Your task to perform on an android device: Add "usb-c to usb-a" to the cart on walmart Image 0: 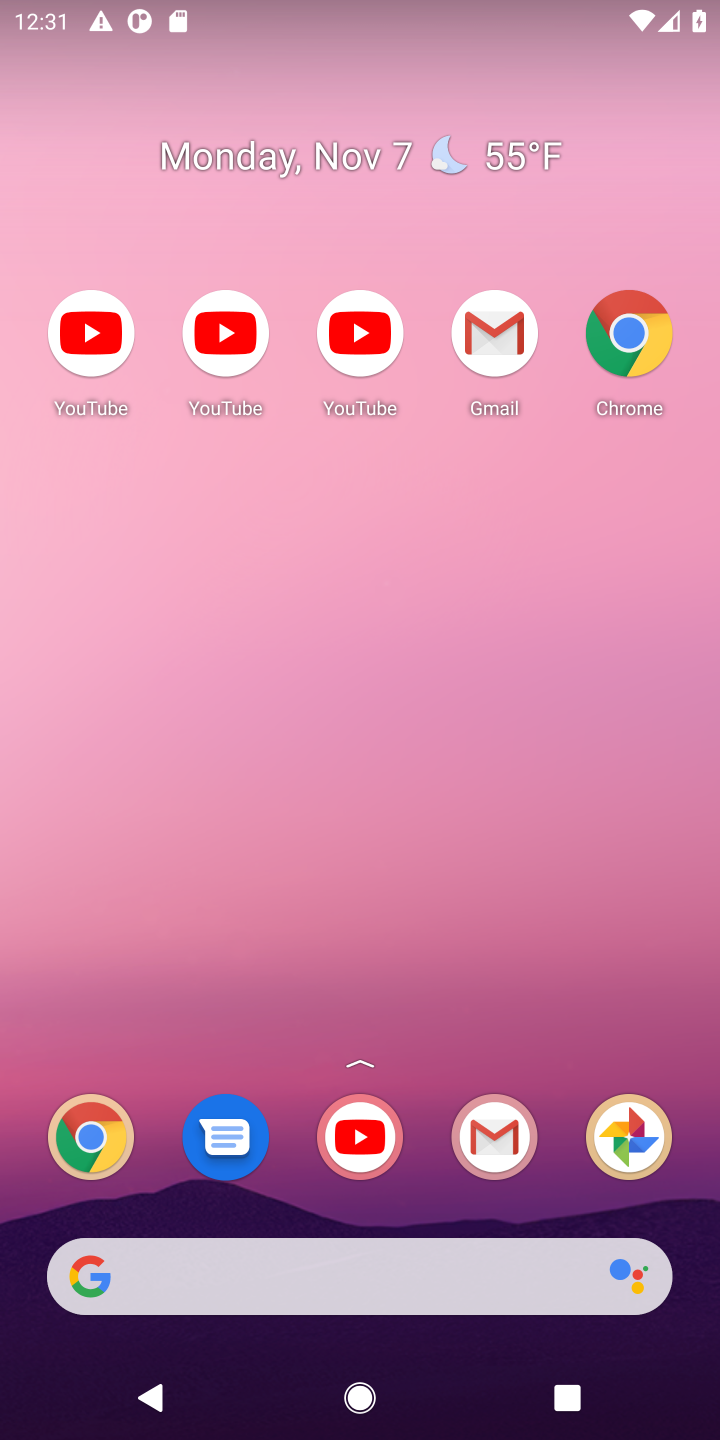
Step 0: drag from (270, 1152) to (329, 183)
Your task to perform on an android device: Add "usb-c to usb-a" to the cart on walmart Image 1: 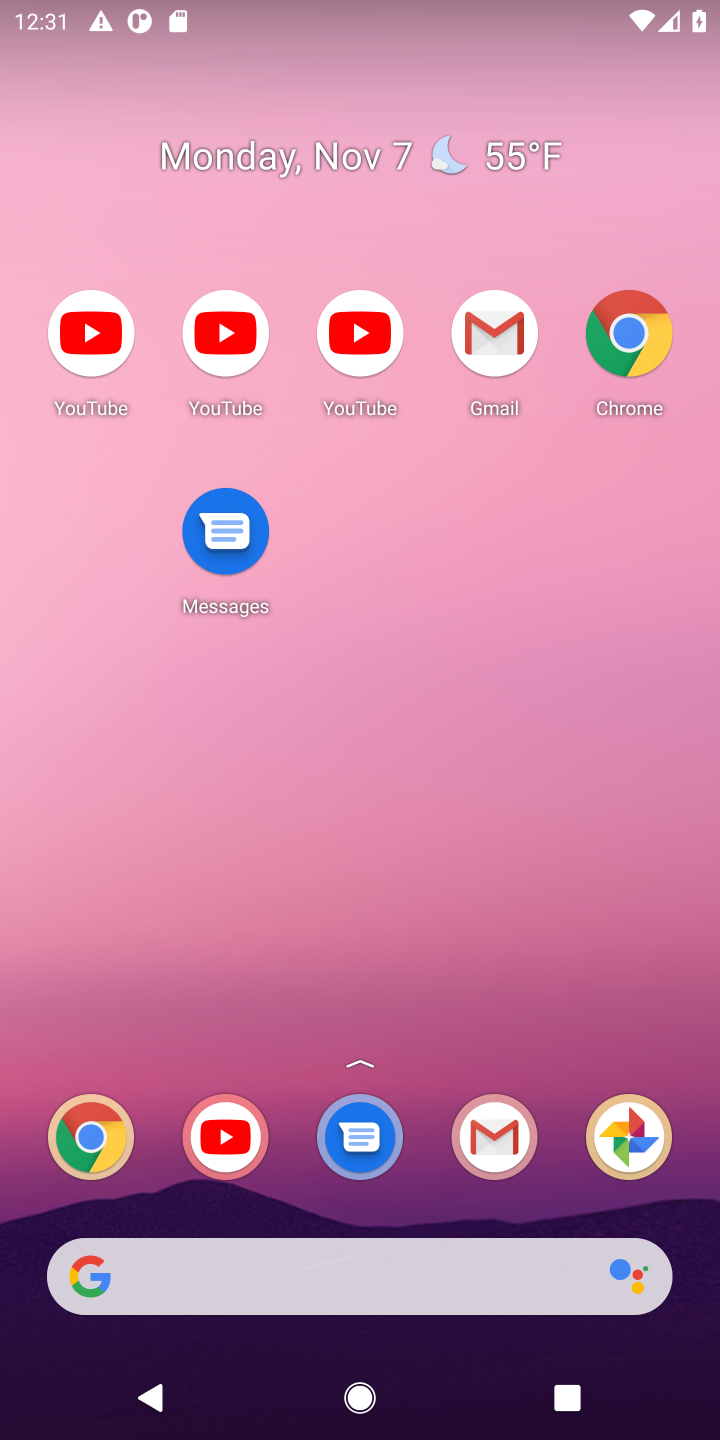
Step 1: click (561, 875)
Your task to perform on an android device: Add "usb-c to usb-a" to the cart on walmart Image 2: 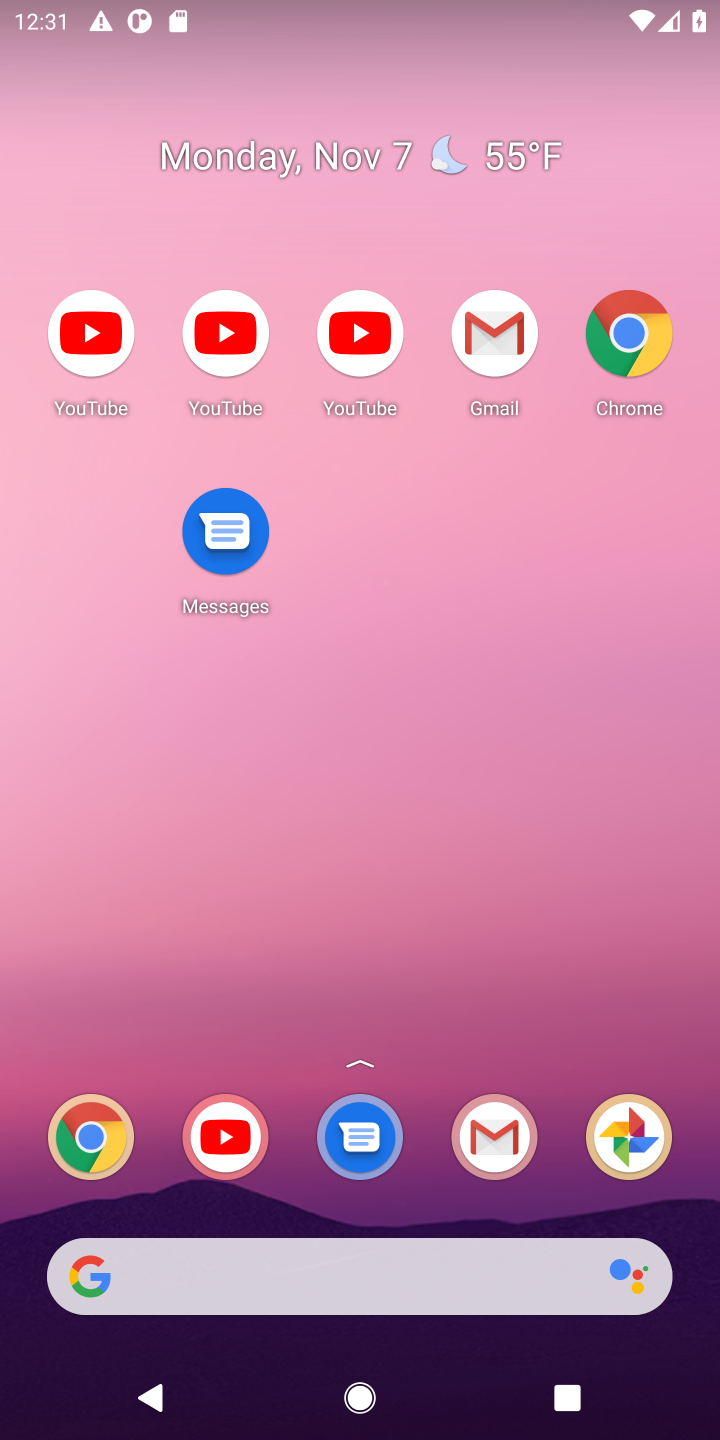
Step 2: drag from (433, 1213) to (634, 33)
Your task to perform on an android device: Add "usb-c to usb-a" to the cart on walmart Image 3: 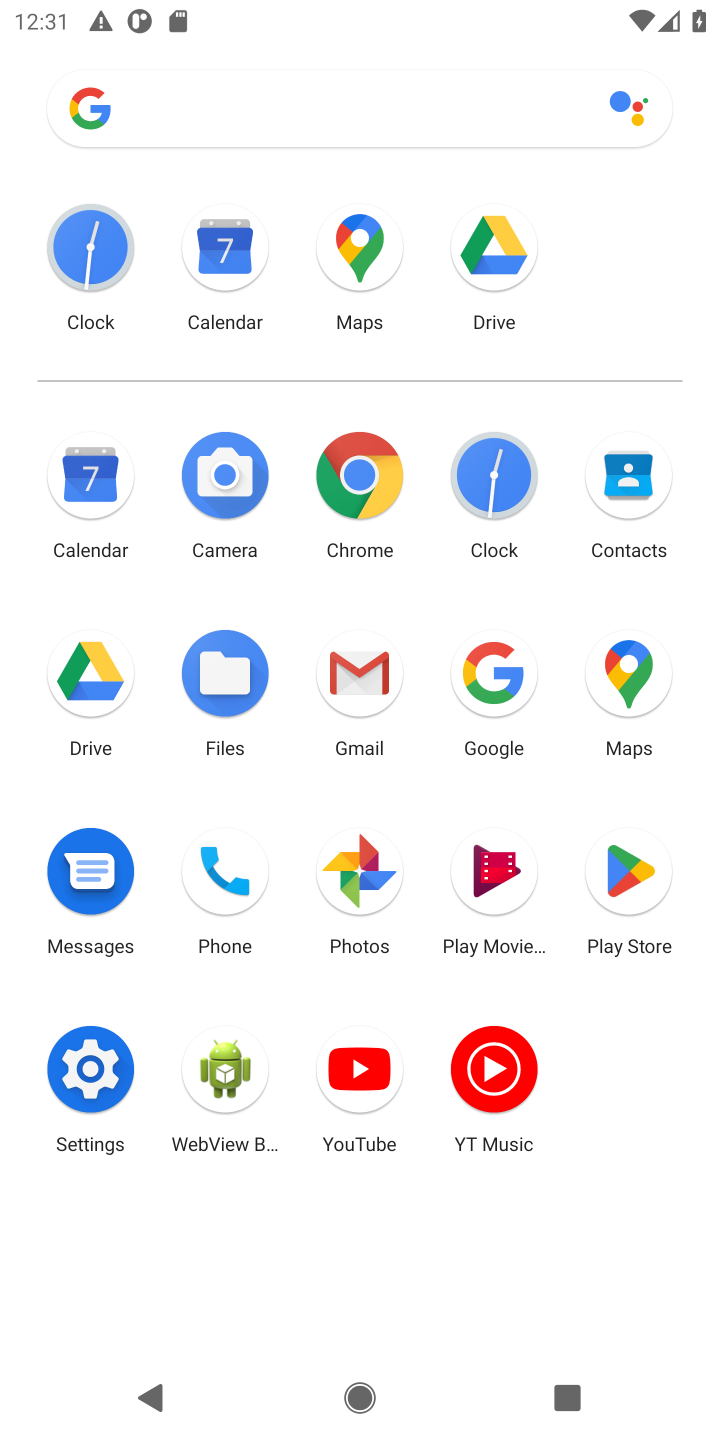
Step 3: click (358, 481)
Your task to perform on an android device: Add "usb-c to usb-a" to the cart on walmart Image 4: 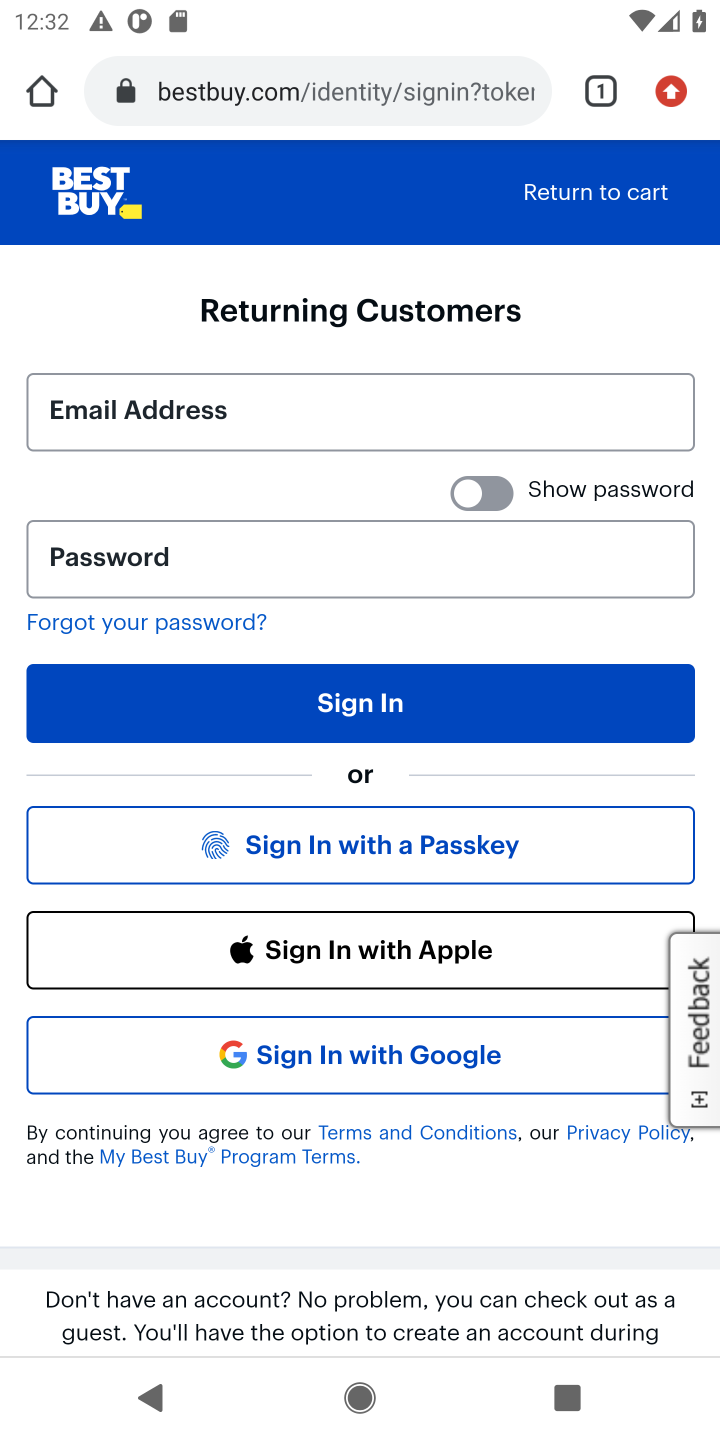
Step 4: click (392, 79)
Your task to perform on an android device: Add "usb-c to usb-a" to the cart on walmart Image 5: 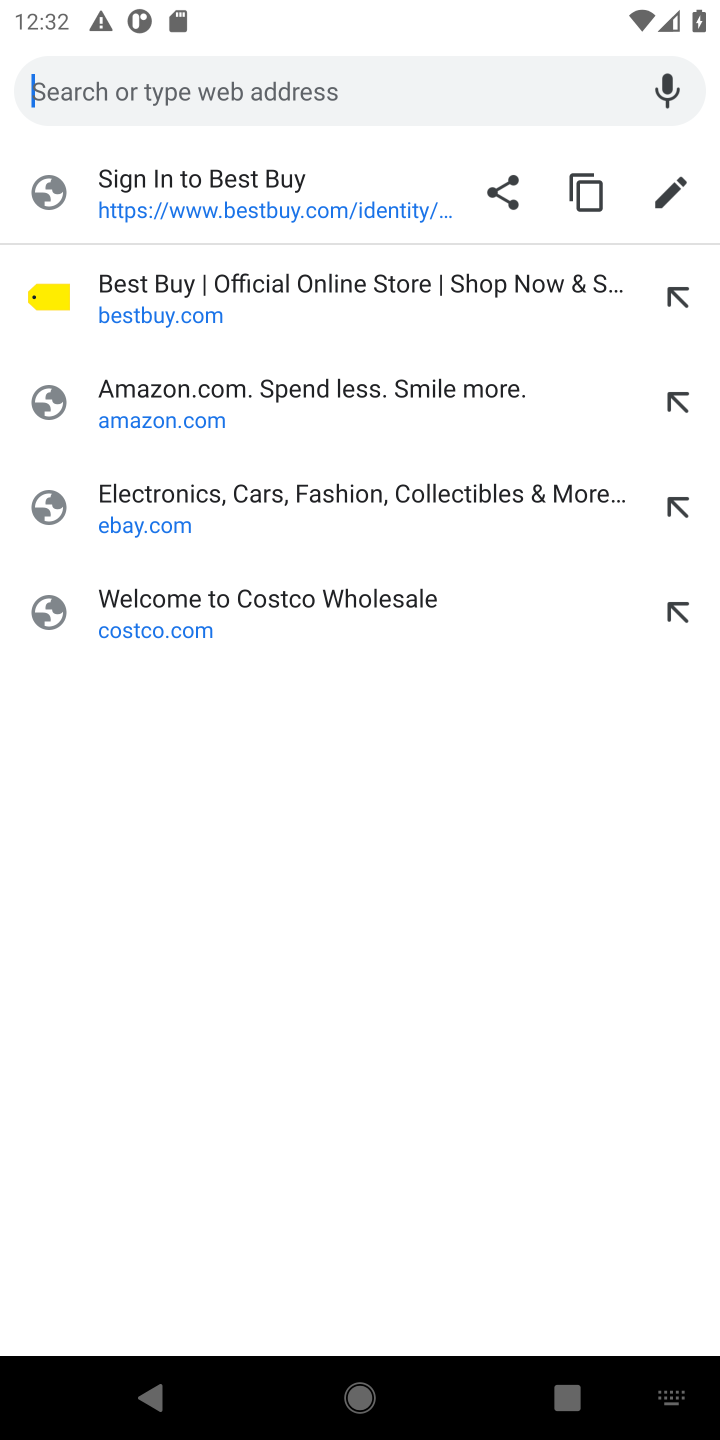
Step 5: type "walmart.com"
Your task to perform on an android device: Add "usb-c to usb-a" to the cart on walmart Image 6: 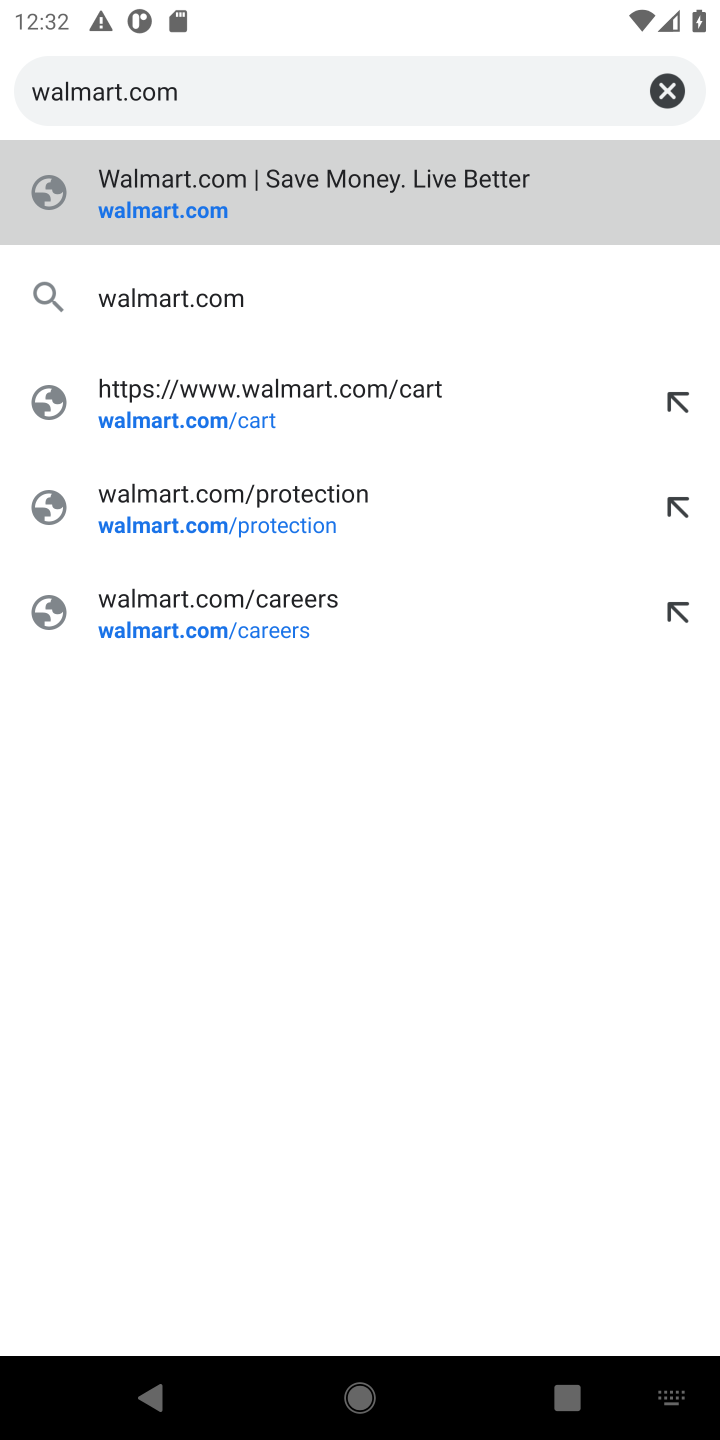
Step 6: press enter
Your task to perform on an android device: Add "usb-c to usb-a" to the cart on walmart Image 7: 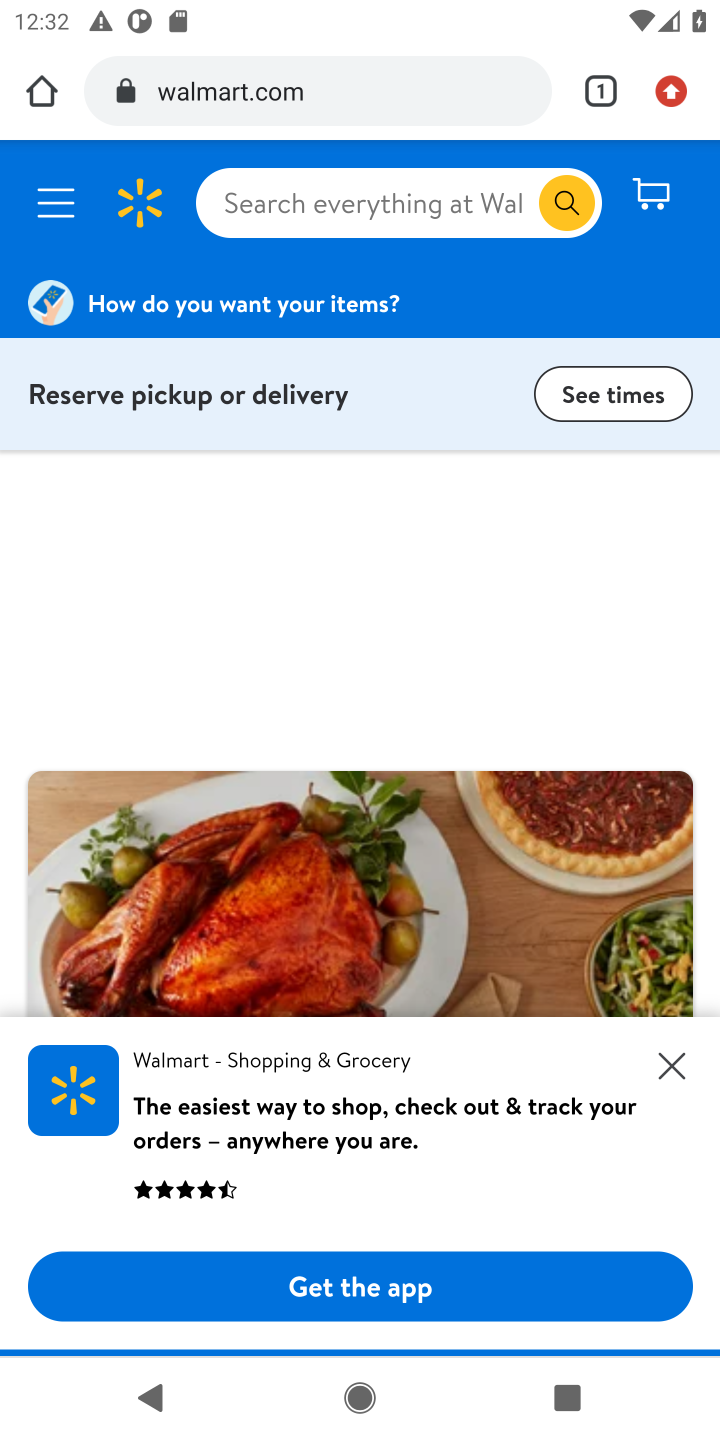
Step 7: click (403, 199)
Your task to perform on an android device: Add "usb-c to usb-a" to the cart on walmart Image 8: 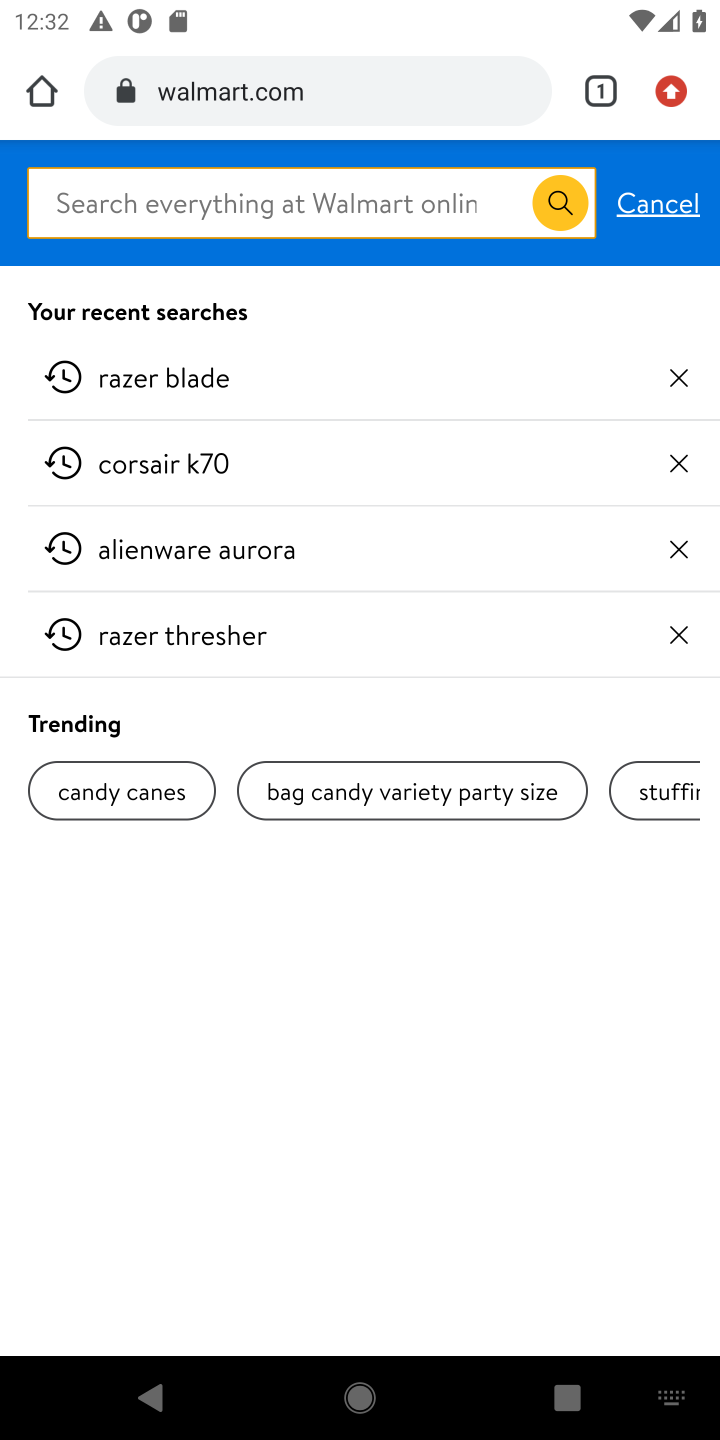
Step 8: type "usb-c to usb-a"
Your task to perform on an android device: Add "usb-c to usb-a" to the cart on walmart Image 9: 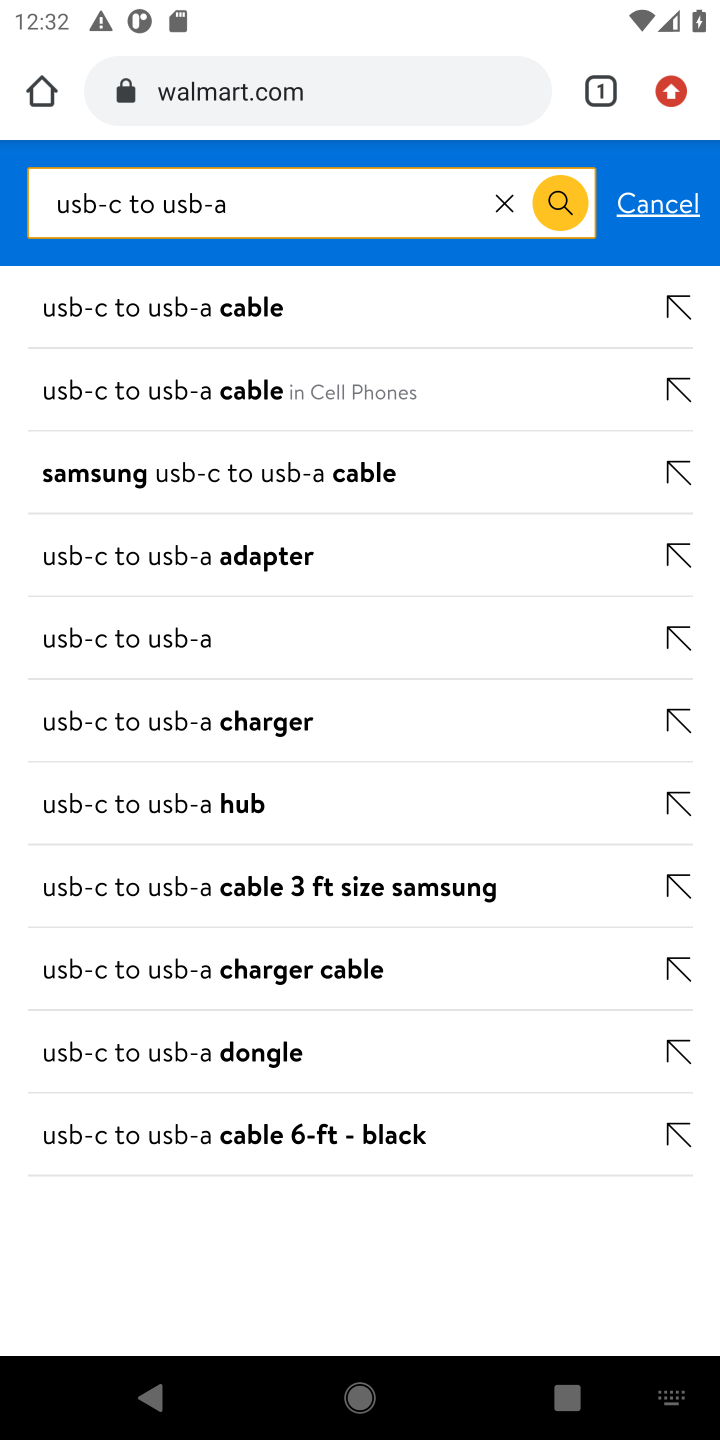
Step 9: press enter
Your task to perform on an android device: Add "usb-c to usb-a" to the cart on walmart Image 10: 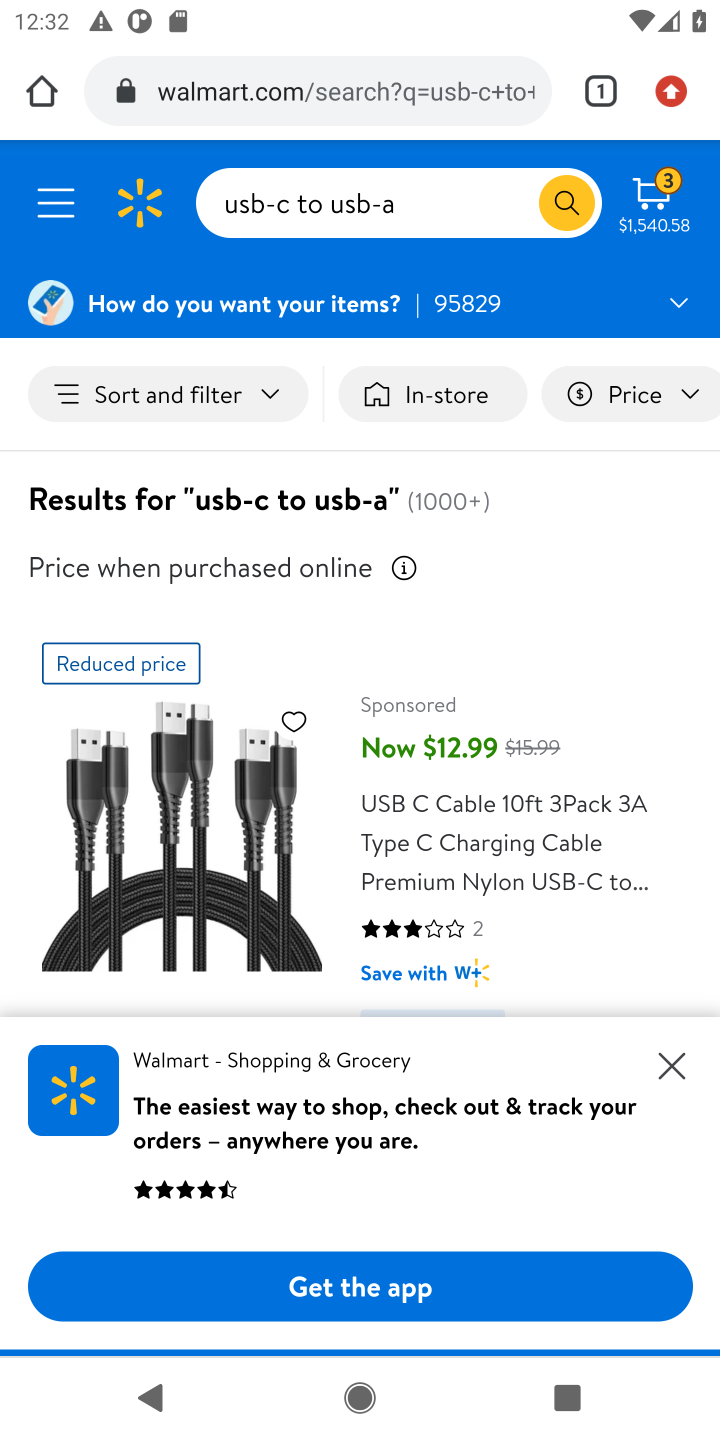
Step 10: drag from (549, 838) to (462, 247)
Your task to perform on an android device: Add "usb-c to usb-a" to the cart on walmart Image 11: 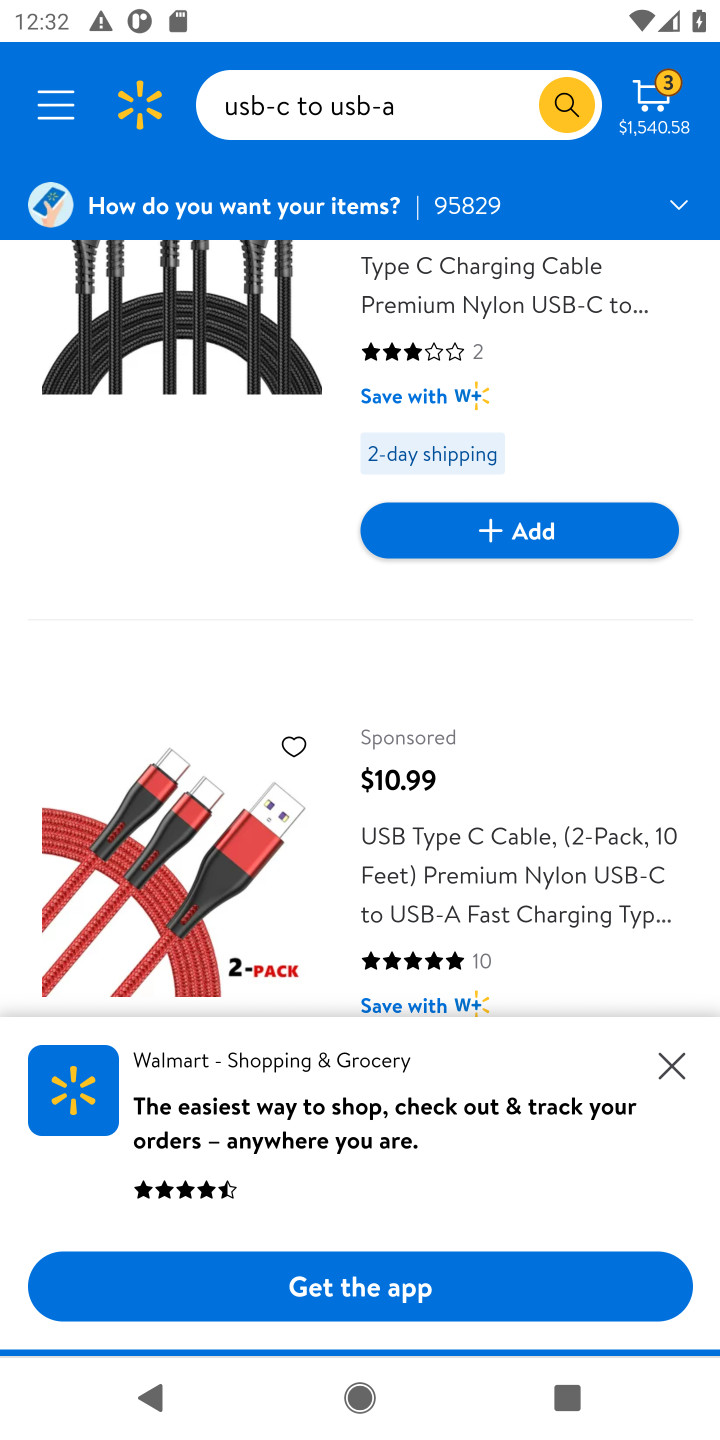
Step 11: drag from (201, 915) to (293, 212)
Your task to perform on an android device: Add "usb-c to usb-a" to the cart on walmart Image 12: 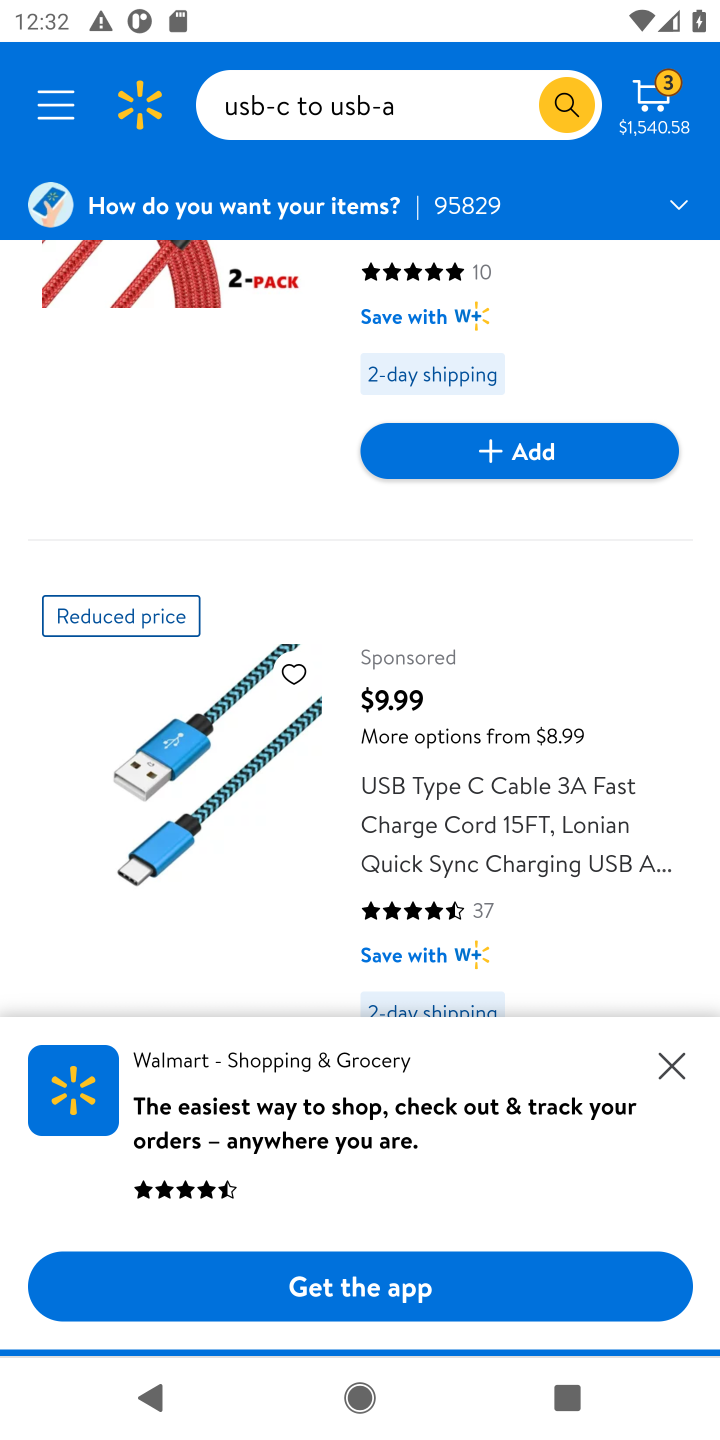
Step 12: drag from (520, 969) to (499, 347)
Your task to perform on an android device: Add "usb-c to usb-a" to the cart on walmart Image 13: 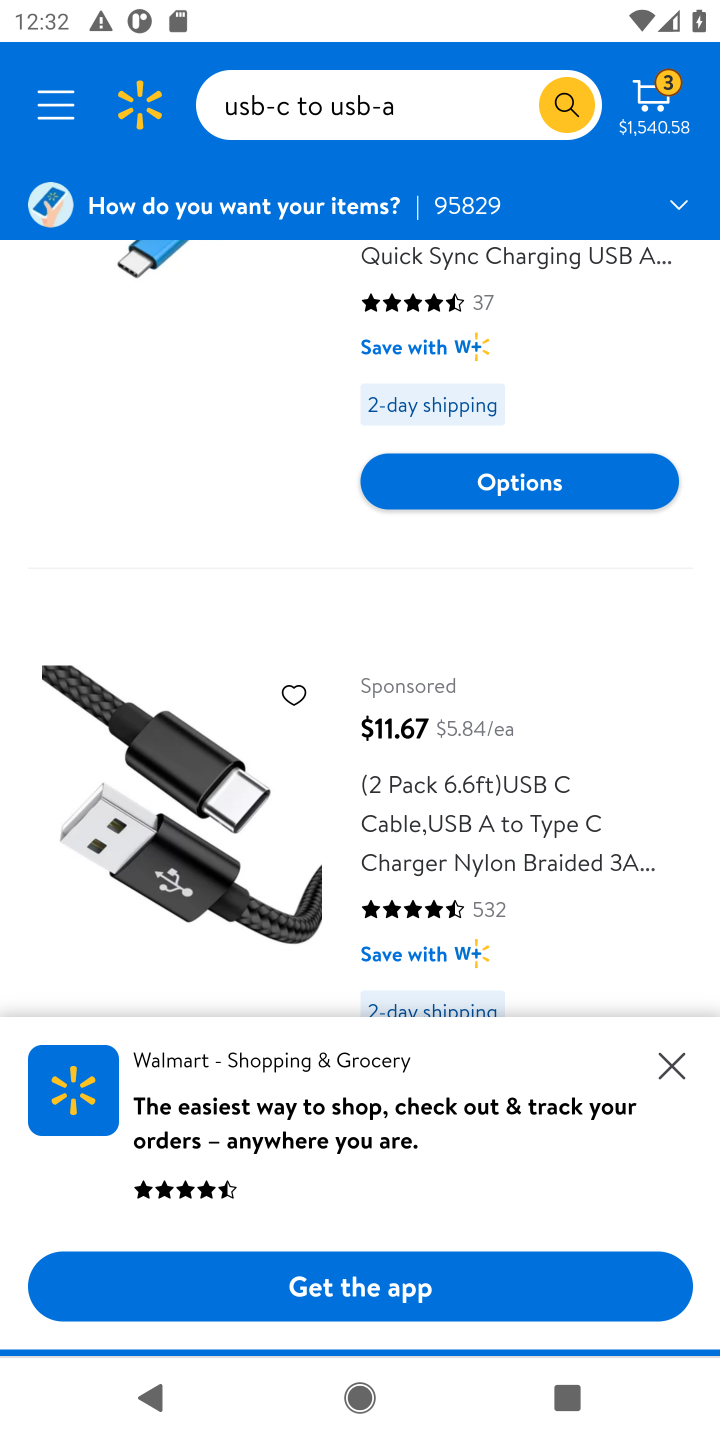
Step 13: drag from (428, 909) to (507, 241)
Your task to perform on an android device: Add "usb-c to usb-a" to the cart on walmart Image 14: 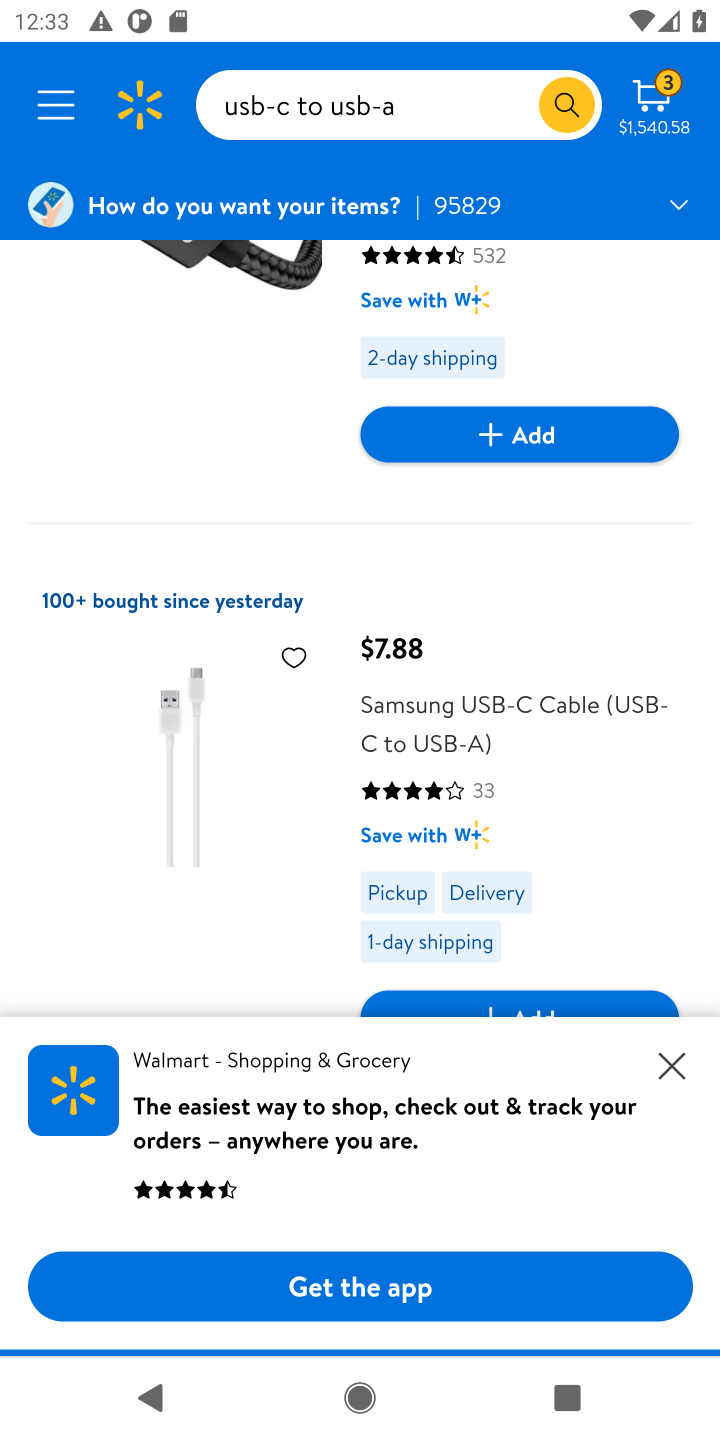
Step 14: drag from (491, 910) to (430, 1435)
Your task to perform on an android device: Add "usb-c to usb-a" to the cart on walmart Image 15: 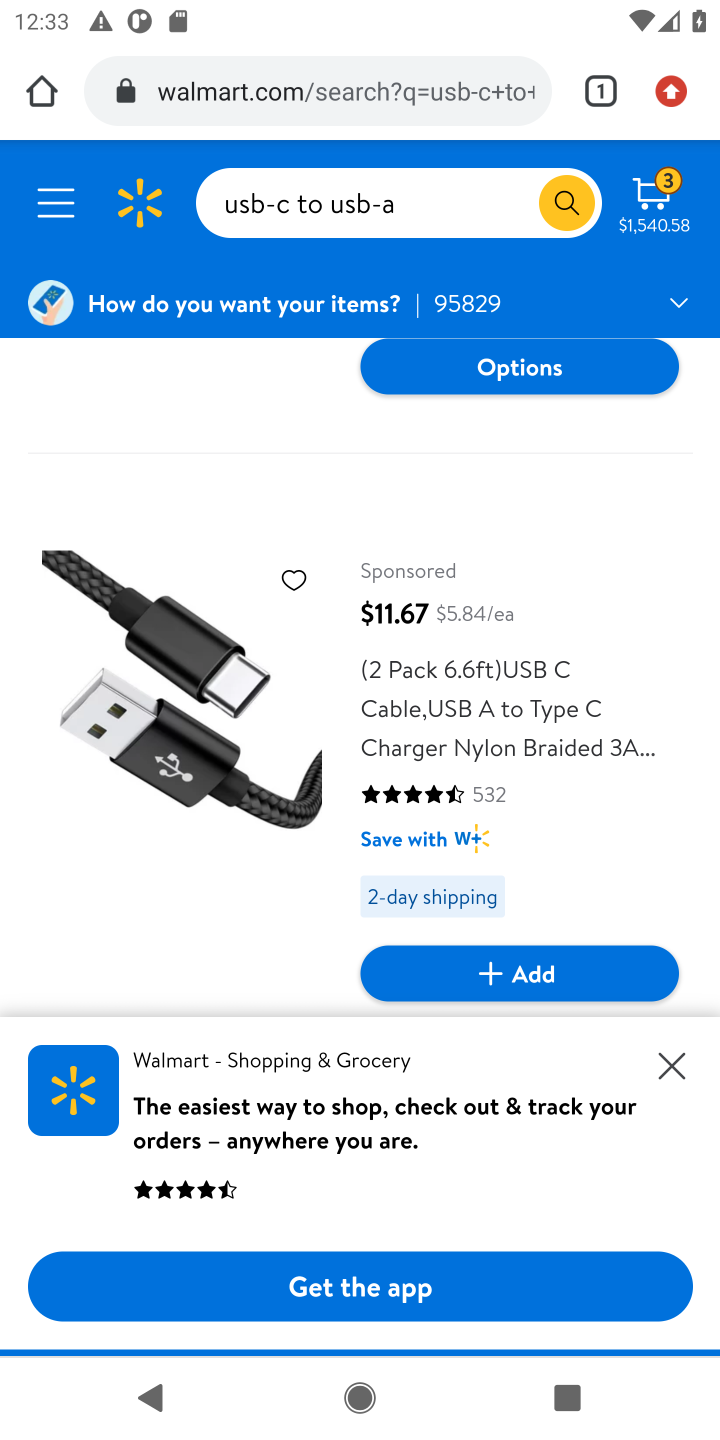
Step 15: drag from (554, 799) to (533, 188)
Your task to perform on an android device: Add "usb-c to usb-a" to the cart on walmart Image 16: 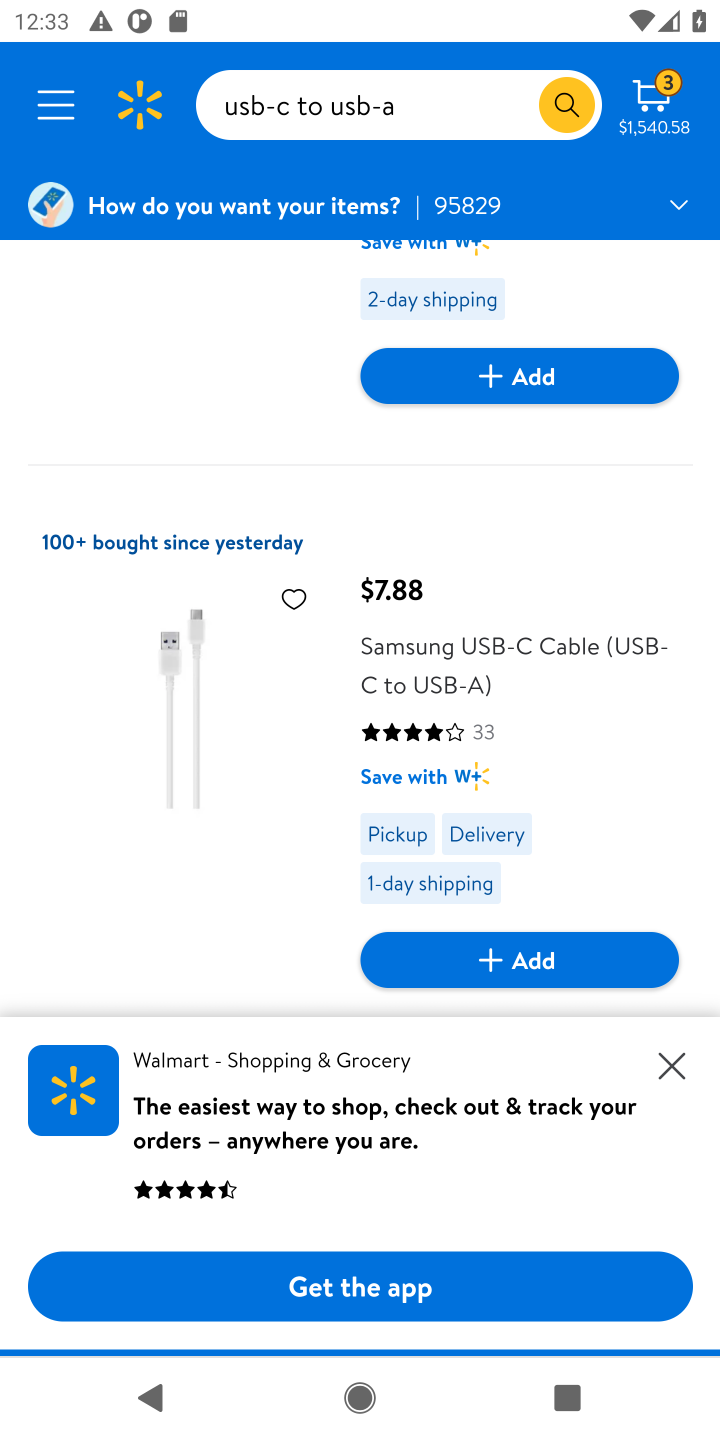
Step 16: click (588, 964)
Your task to perform on an android device: Add "usb-c to usb-a" to the cart on walmart Image 17: 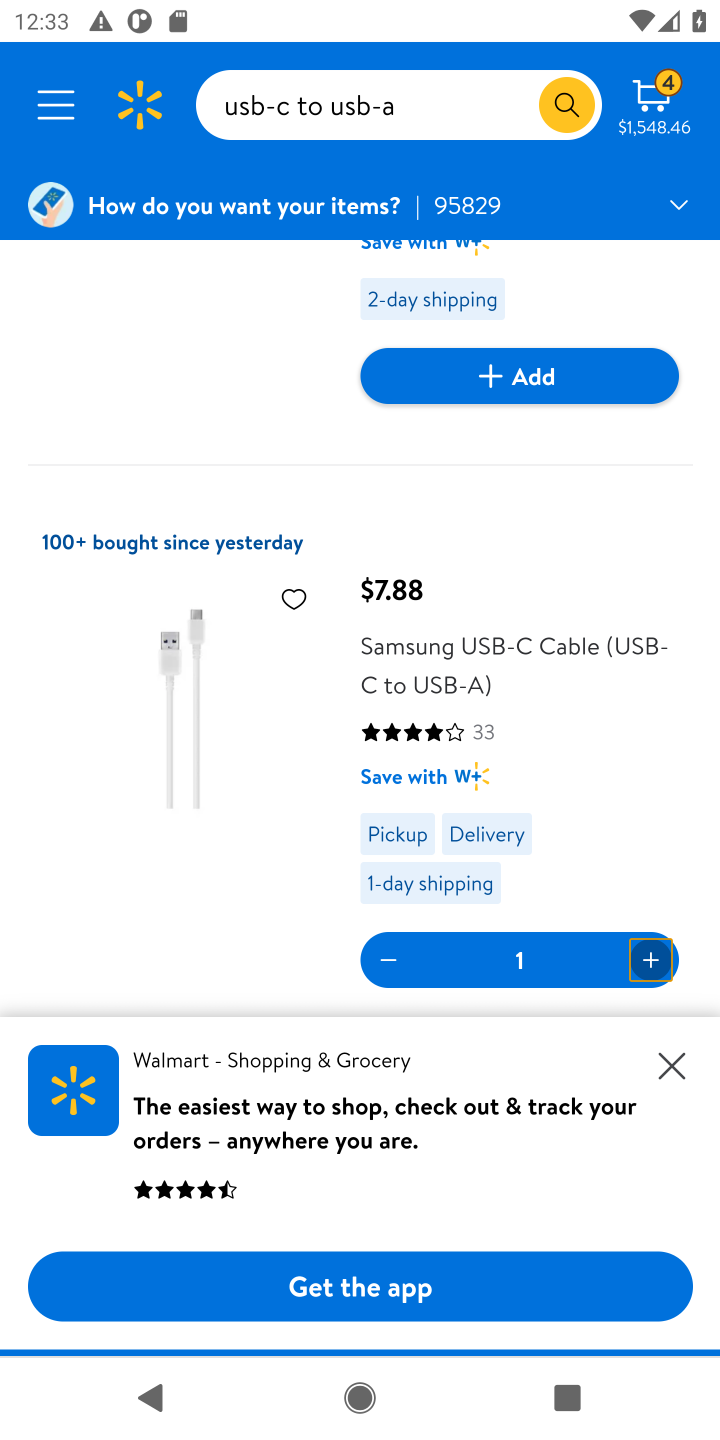
Step 17: task complete